Your task to perform on an android device: Open ESPN.com Image 0: 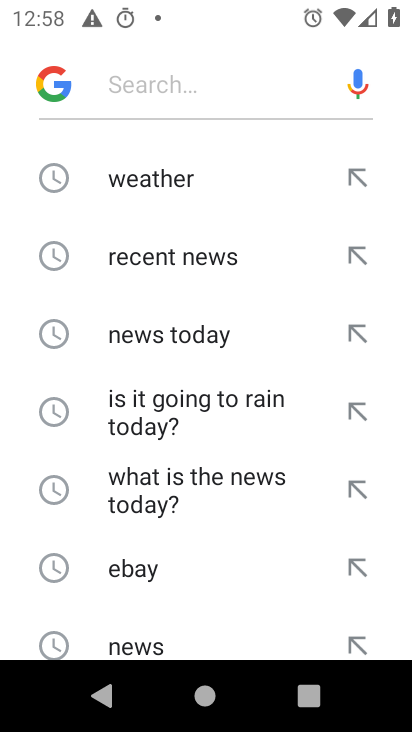
Step 0: press back button
Your task to perform on an android device: Open ESPN.com Image 1: 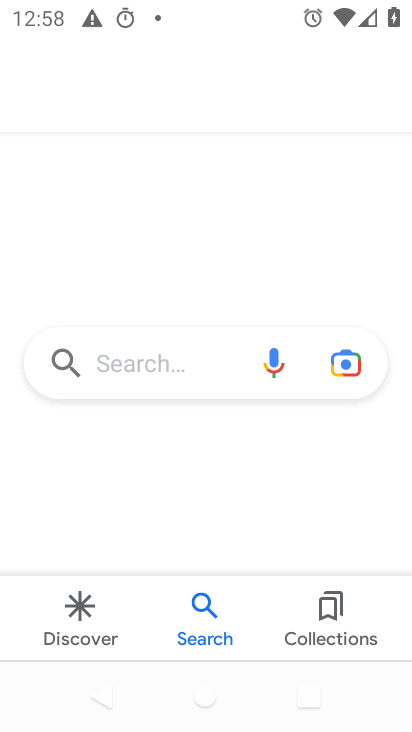
Step 1: press back button
Your task to perform on an android device: Open ESPN.com Image 2: 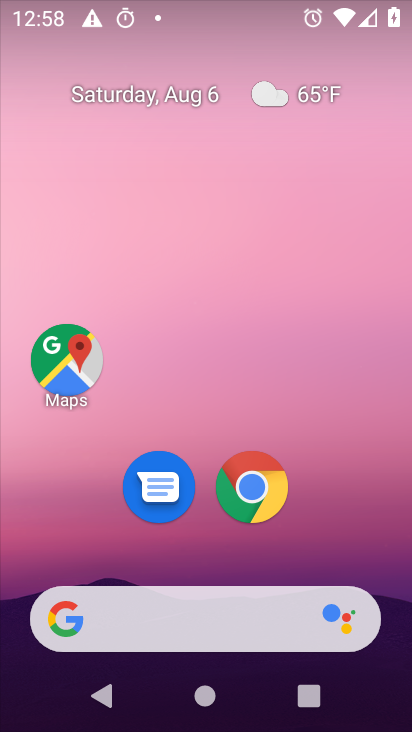
Step 2: click (255, 485)
Your task to perform on an android device: Open ESPN.com Image 3: 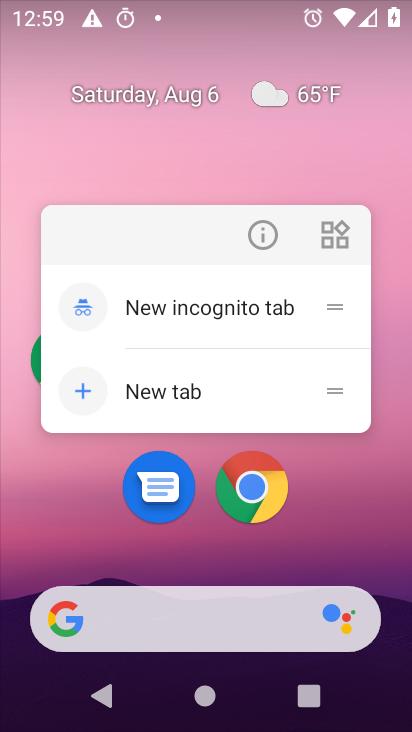
Step 3: click (260, 482)
Your task to perform on an android device: Open ESPN.com Image 4: 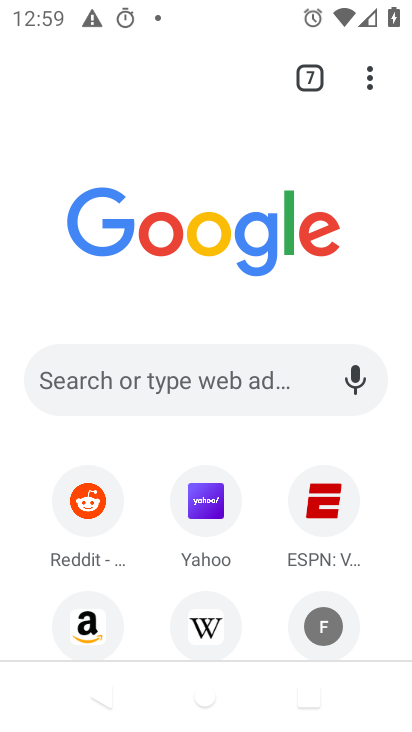
Step 4: click (337, 506)
Your task to perform on an android device: Open ESPN.com Image 5: 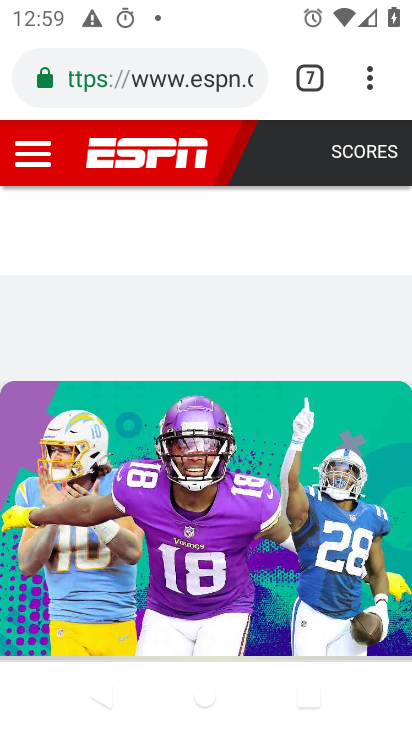
Step 5: task complete